Your task to perform on an android device: turn off notifications settings in the gmail app Image 0: 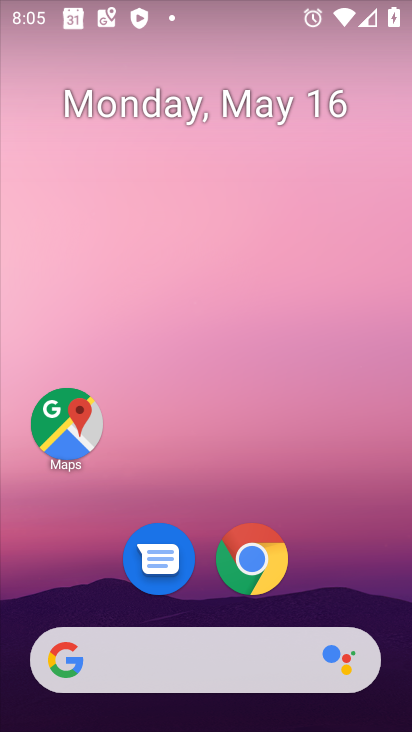
Step 0: drag from (384, 570) to (379, 194)
Your task to perform on an android device: turn off notifications settings in the gmail app Image 1: 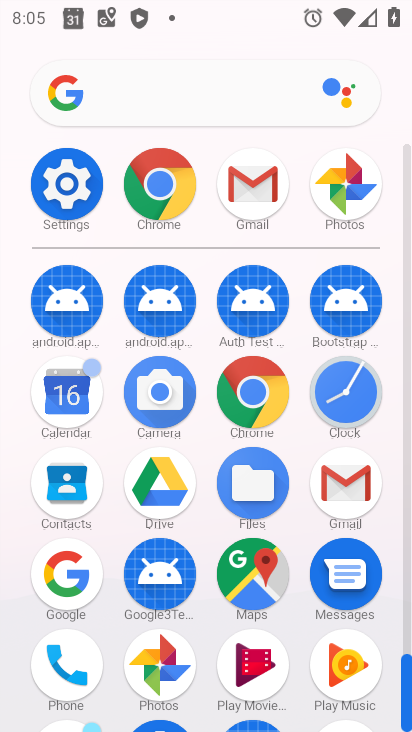
Step 1: click (339, 459)
Your task to perform on an android device: turn off notifications settings in the gmail app Image 2: 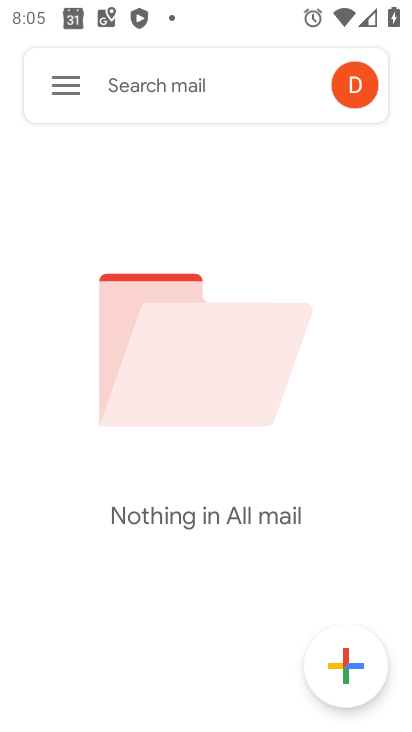
Step 2: click (65, 78)
Your task to perform on an android device: turn off notifications settings in the gmail app Image 3: 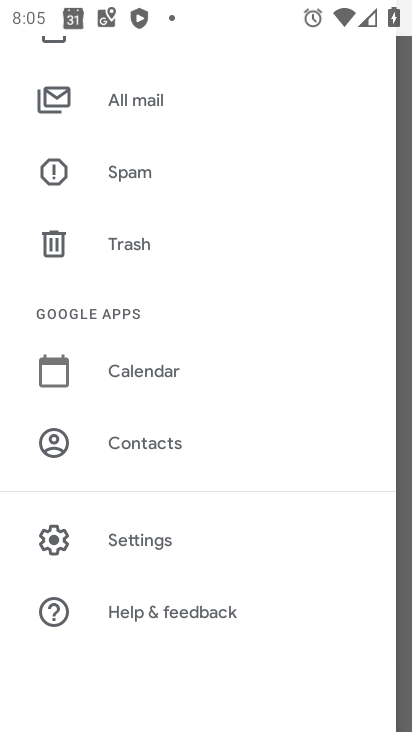
Step 3: drag from (236, 143) to (227, 598)
Your task to perform on an android device: turn off notifications settings in the gmail app Image 4: 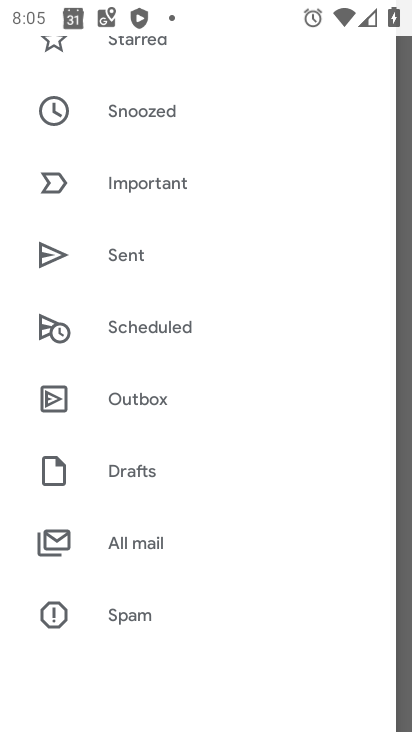
Step 4: drag from (233, 236) to (270, 550)
Your task to perform on an android device: turn off notifications settings in the gmail app Image 5: 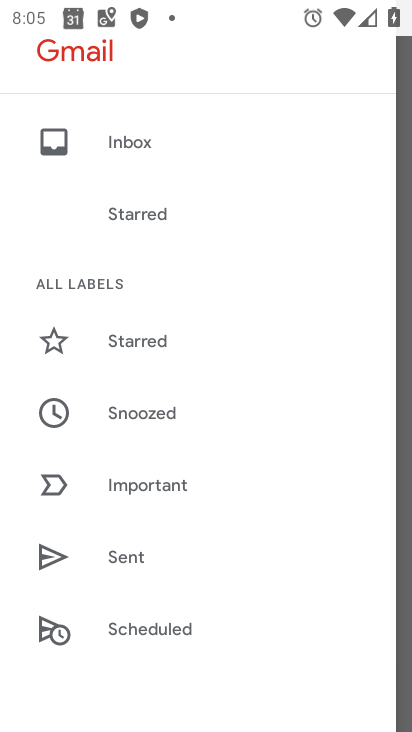
Step 5: drag from (270, 595) to (282, 211)
Your task to perform on an android device: turn off notifications settings in the gmail app Image 6: 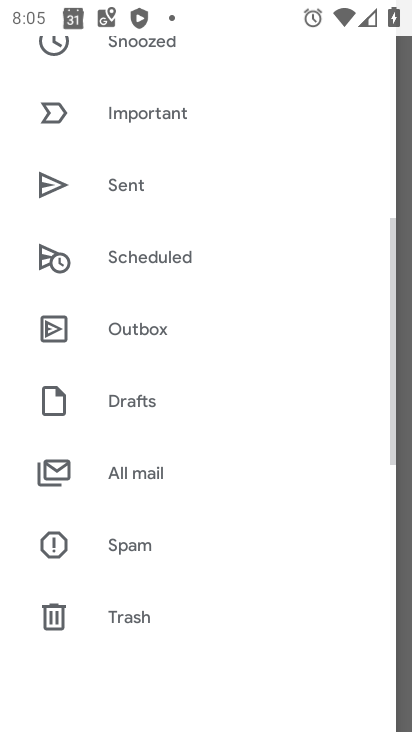
Step 6: drag from (267, 629) to (274, 212)
Your task to perform on an android device: turn off notifications settings in the gmail app Image 7: 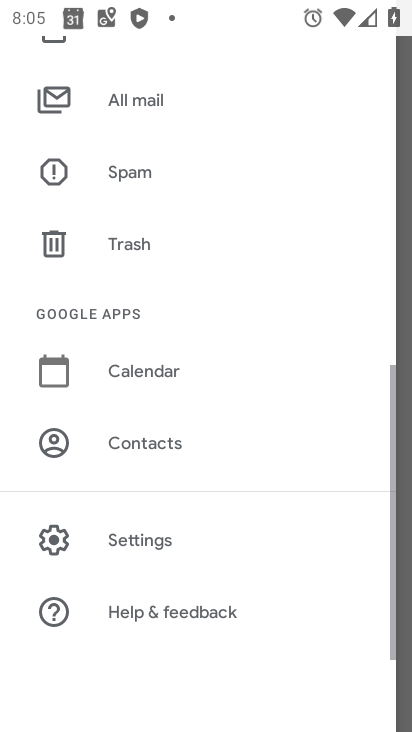
Step 7: click (140, 554)
Your task to perform on an android device: turn off notifications settings in the gmail app Image 8: 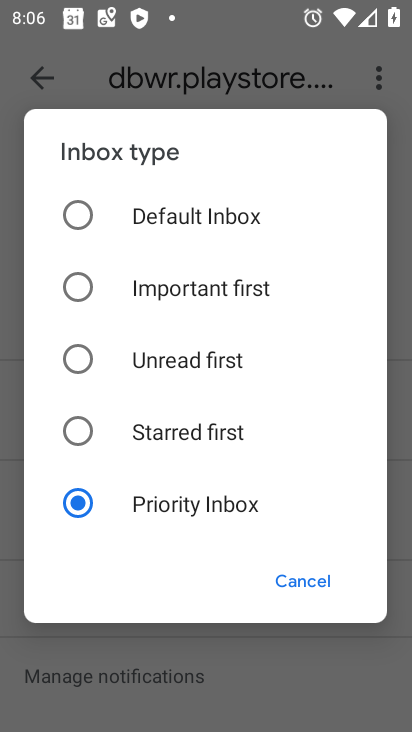
Step 8: click (298, 582)
Your task to perform on an android device: turn off notifications settings in the gmail app Image 9: 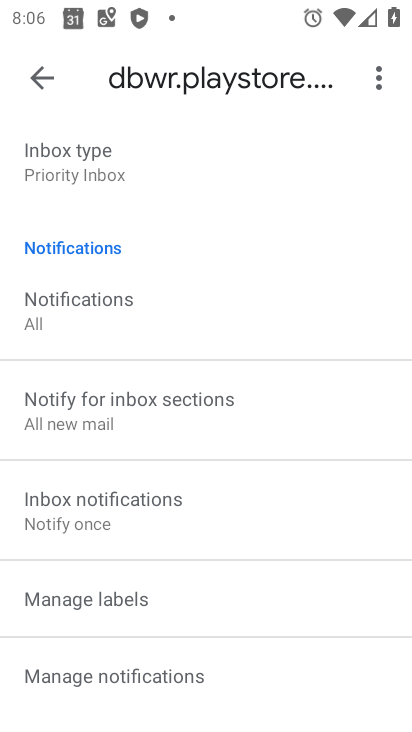
Step 9: click (110, 309)
Your task to perform on an android device: turn off notifications settings in the gmail app Image 10: 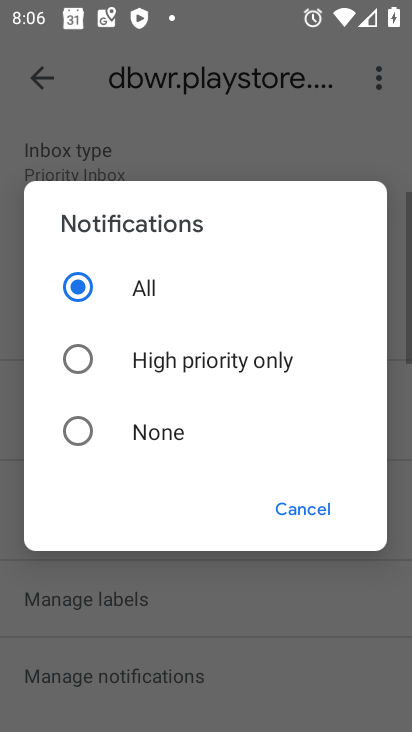
Step 10: click (126, 440)
Your task to perform on an android device: turn off notifications settings in the gmail app Image 11: 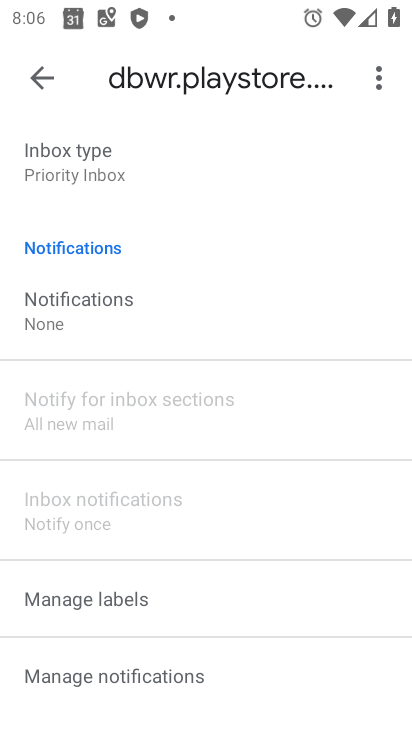
Step 11: task complete